Your task to perform on an android device: Play the last video I watched on Youtube Image 0: 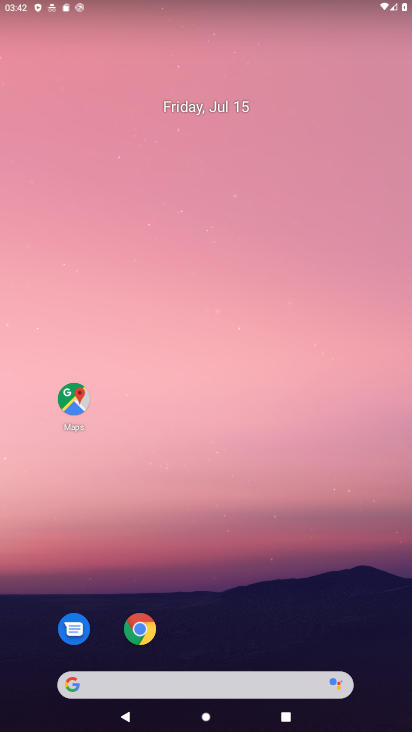
Step 0: press home button
Your task to perform on an android device: Play the last video I watched on Youtube Image 1: 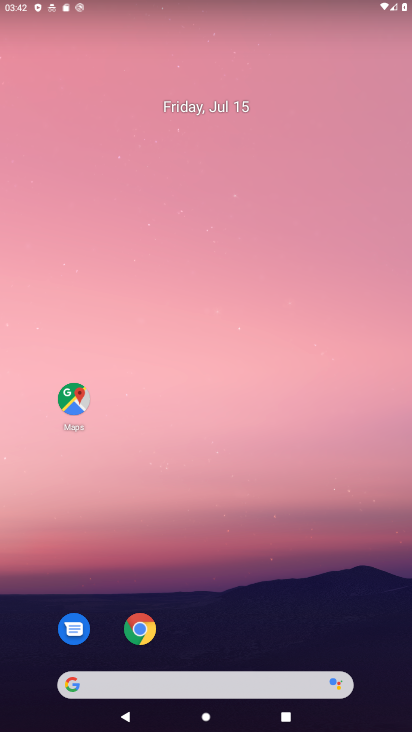
Step 1: drag from (277, 575) to (369, 314)
Your task to perform on an android device: Play the last video I watched on Youtube Image 2: 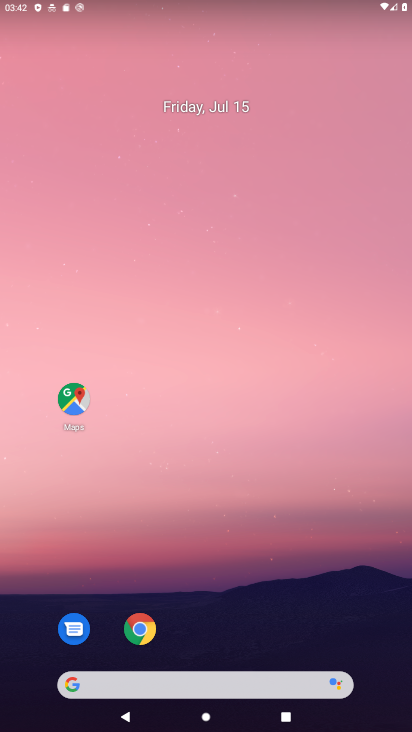
Step 2: drag from (323, 588) to (405, 203)
Your task to perform on an android device: Play the last video I watched on Youtube Image 3: 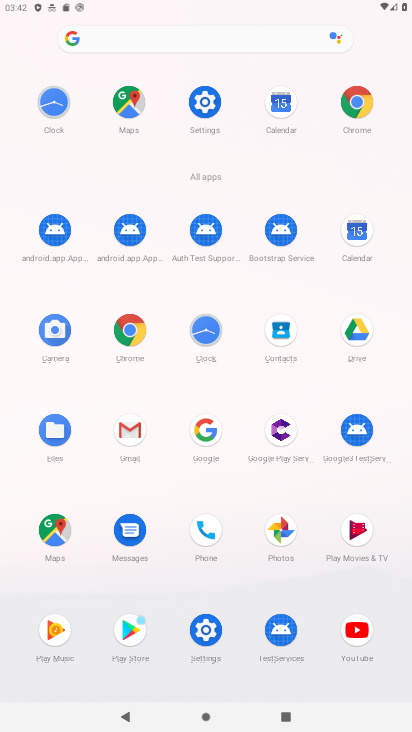
Step 3: click (365, 632)
Your task to perform on an android device: Play the last video I watched on Youtube Image 4: 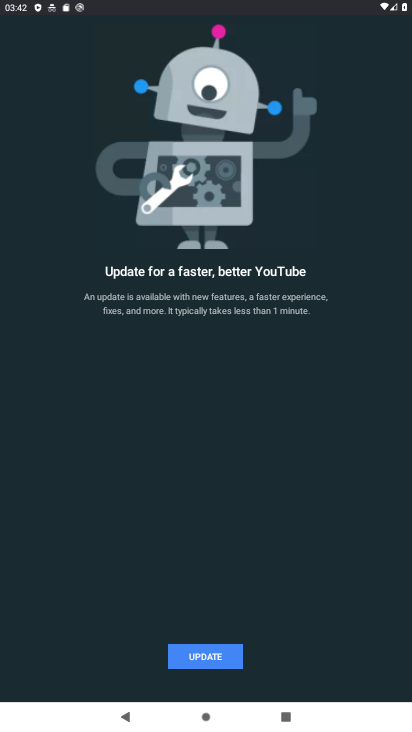
Step 4: click (218, 663)
Your task to perform on an android device: Play the last video I watched on Youtube Image 5: 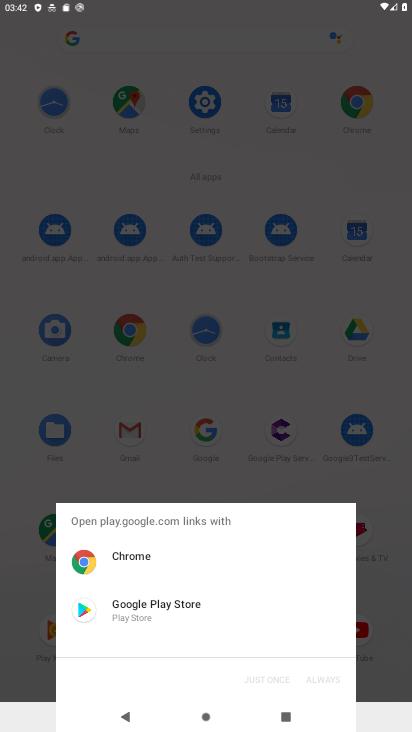
Step 5: task complete